Your task to perform on an android device: turn off translation in the chrome app Image 0: 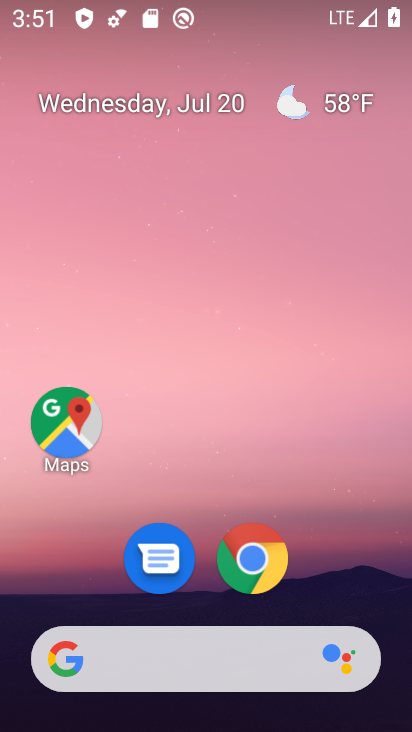
Step 0: click (265, 559)
Your task to perform on an android device: turn off translation in the chrome app Image 1: 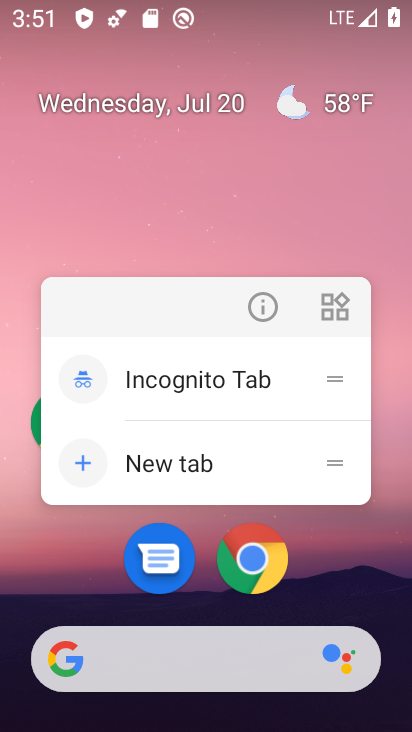
Step 1: click (236, 559)
Your task to perform on an android device: turn off translation in the chrome app Image 2: 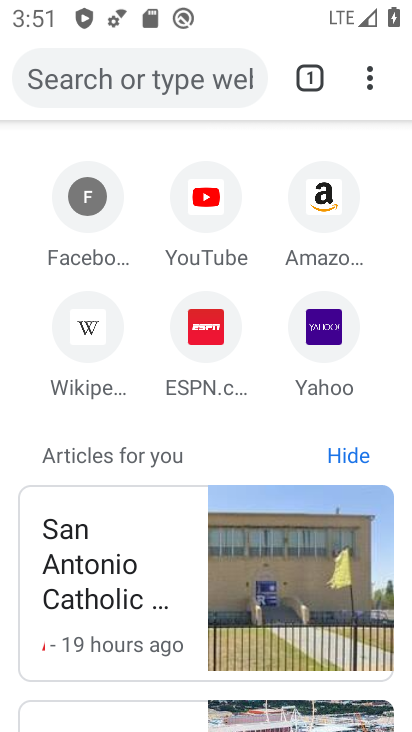
Step 2: drag from (370, 78) to (148, 652)
Your task to perform on an android device: turn off translation in the chrome app Image 3: 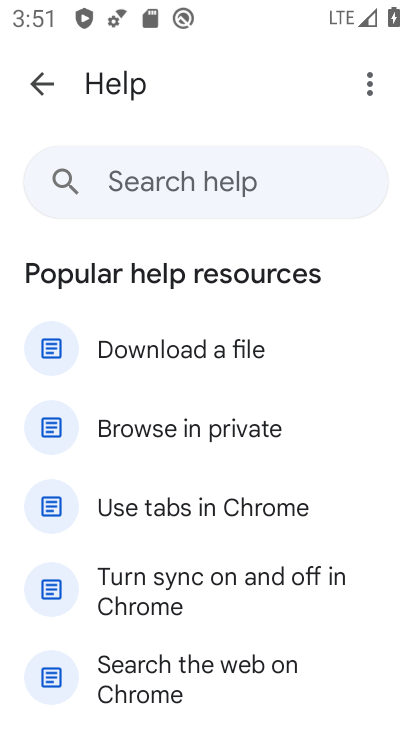
Step 3: press back button
Your task to perform on an android device: turn off translation in the chrome app Image 4: 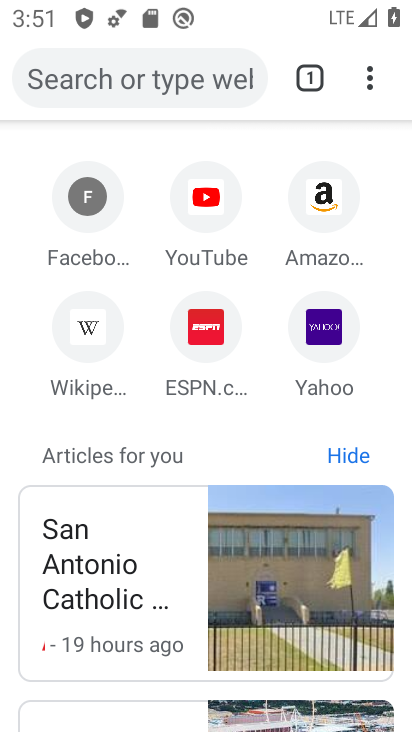
Step 4: drag from (375, 73) to (134, 626)
Your task to perform on an android device: turn off translation in the chrome app Image 5: 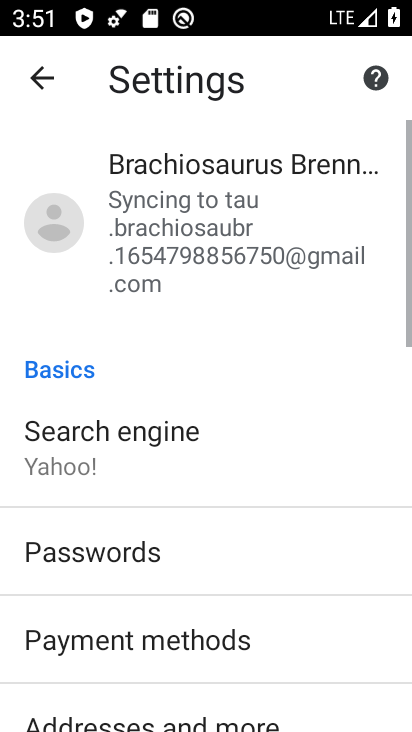
Step 5: drag from (188, 640) to (313, 100)
Your task to perform on an android device: turn off translation in the chrome app Image 6: 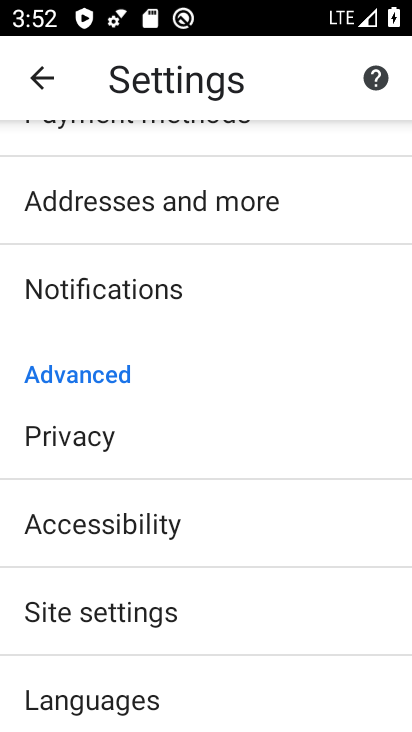
Step 6: click (86, 695)
Your task to perform on an android device: turn off translation in the chrome app Image 7: 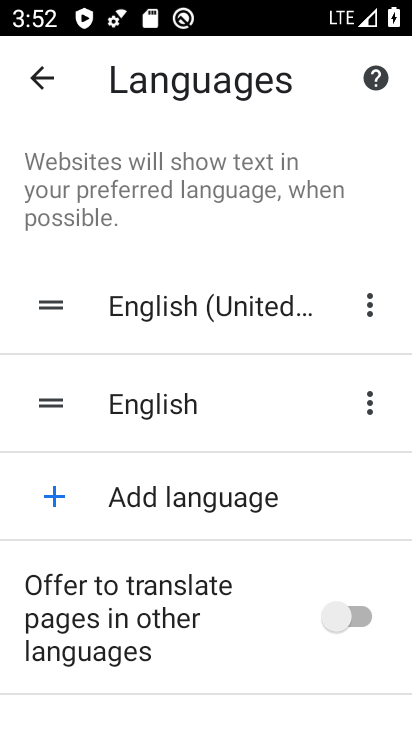
Step 7: task complete